Your task to perform on an android device: Open wifi settings Image 0: 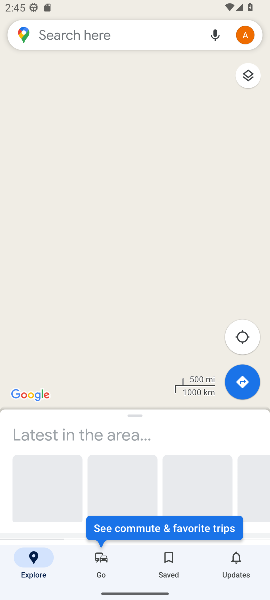
Step 0: press home button
Your task to perform on an android device: Open wifi settings Image 1: 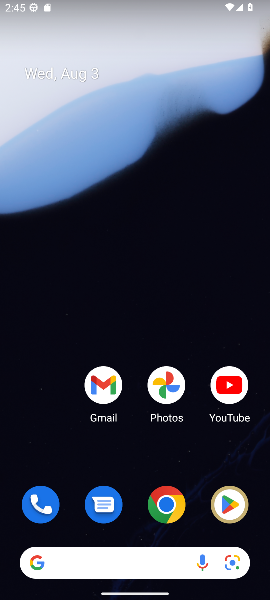
Step 1: drag from (124, 456) to (97, 115)
Your task to perform on an android device: Open wifi settings Image 2: 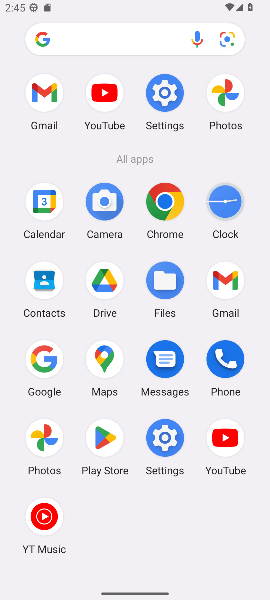
Step 2: click (157, 97)
Your task to perform on an android device: Open wifi settings Image 3: 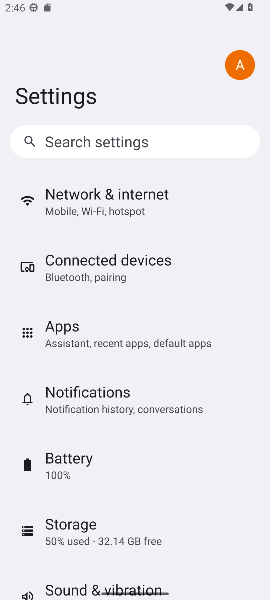
Step 3: click (113, 197)
Your task to perform on an android device: Open wifi settings Image 4: 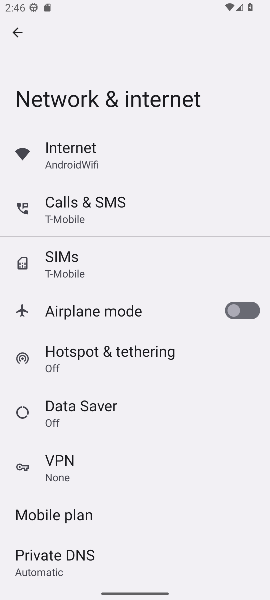
Step 4: click (92, 160)
Your task to perform on an android device: Open wifi settings Image 5: 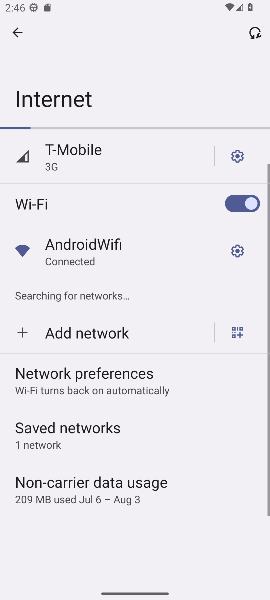
Step 5: click (232, 246)
Your task to perform on an android device: Open wifi settings Image 6: 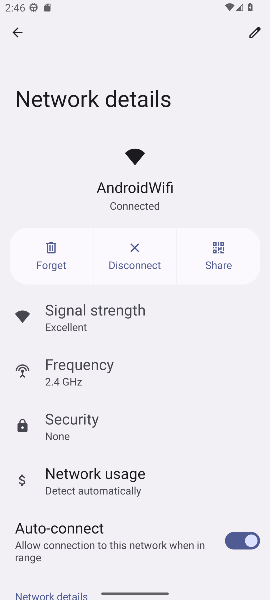
Step 6: task complete